Your task to perform on an android device: change the clock display to analog Image 0: 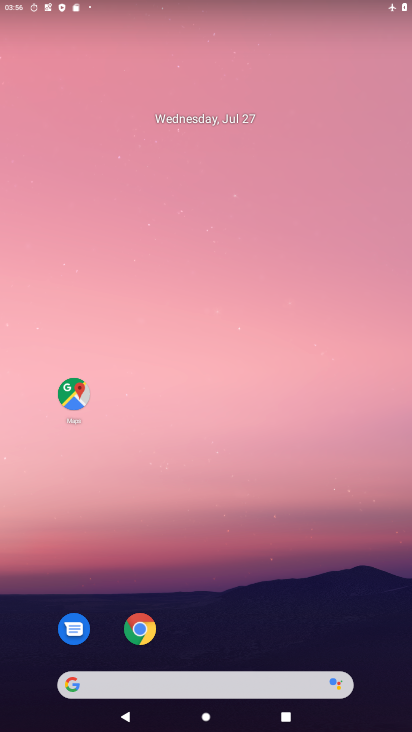
Step 0: drag from (333, 607) to (310, 51)
Your task to perform on an android device: change the clock display to analog Image 1: 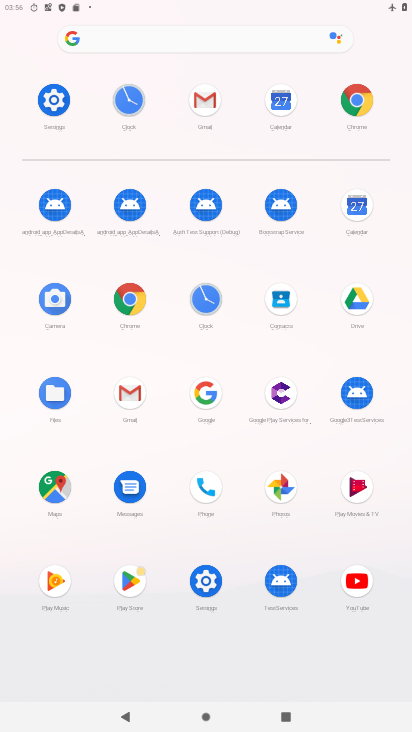
Step 1: click (212, 292)
Your task to perform on an android device: change the clock display to analog Image 2: 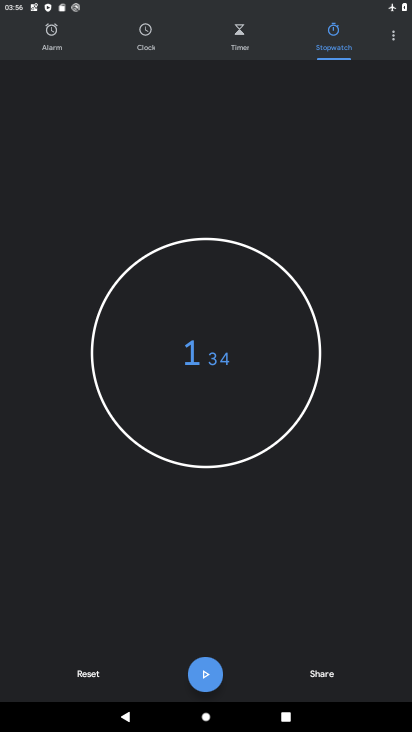
Step 2: click (388, 36)
Your task to perform on an android device: change the clock display to analog Image 3: 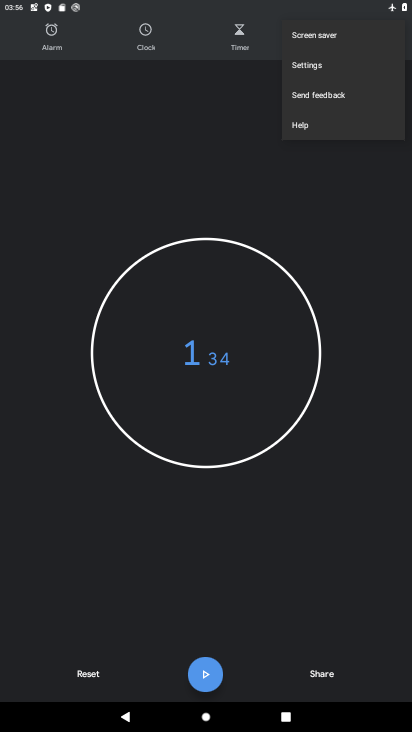
Step 3: click (316, 69)
Your task to perform on an android device: change the clock display to analog Image 4: 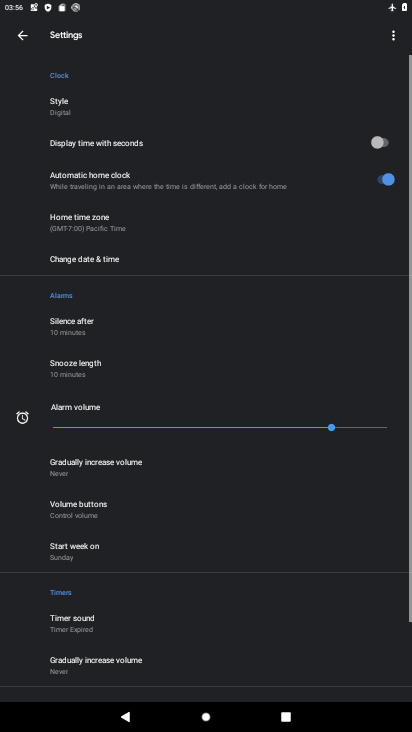
Step 4: click (48, 102)
Your task to perform on an android device: change the clock display to analog Image 5: 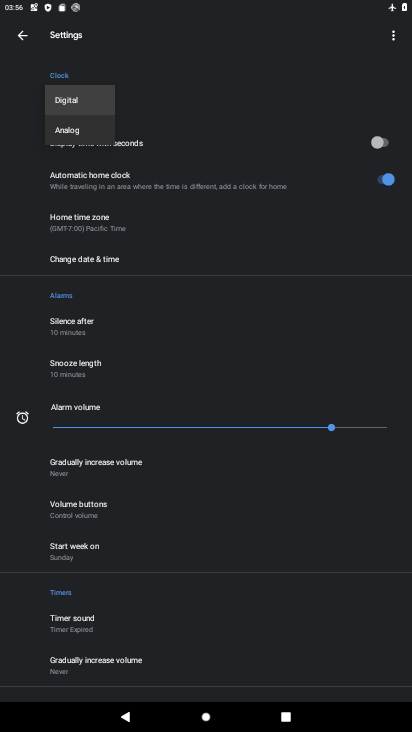
Step 5: click (85, 131)
Your task to perform on an android device: change the clock display to analog Image 6: 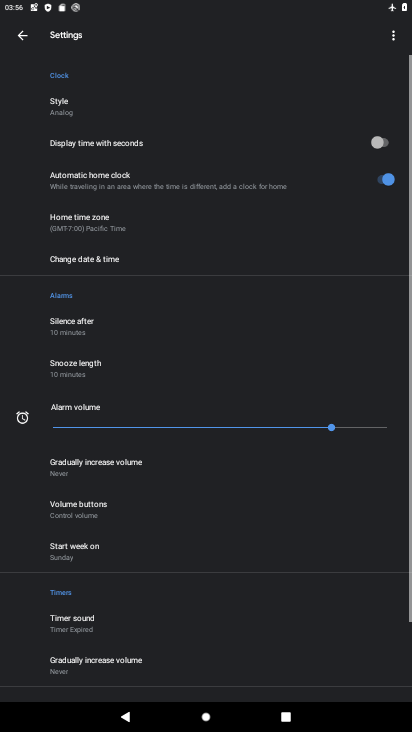
Step 6: task complete